Your task to perform on an android device: toggle notifications settings in the gmail app Image 0: 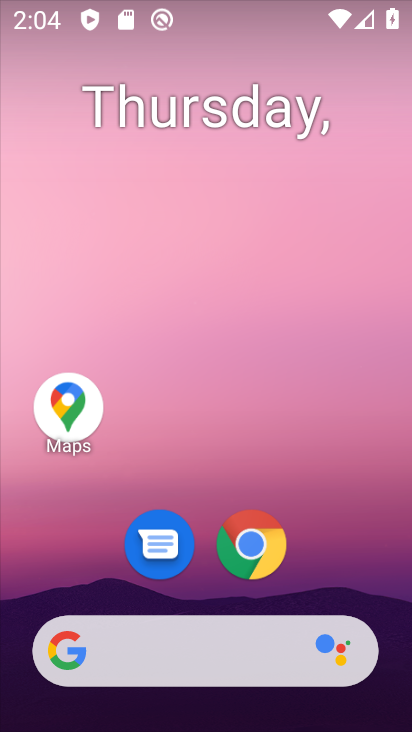
Step 0: drag from (340, 587) to (177, 126)
Your task to perform on an android device: toggle notifications settings in the gmail app Image 1: 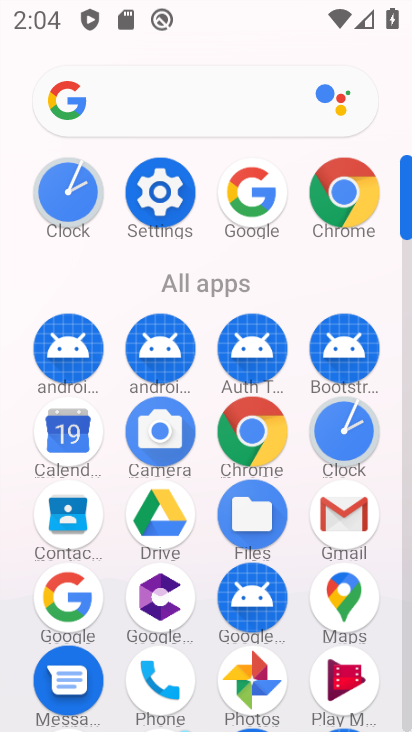
Step 1: click (345, 529)
Your task to perform on an android device: toggle notifications settings in the gmail app Image 2: 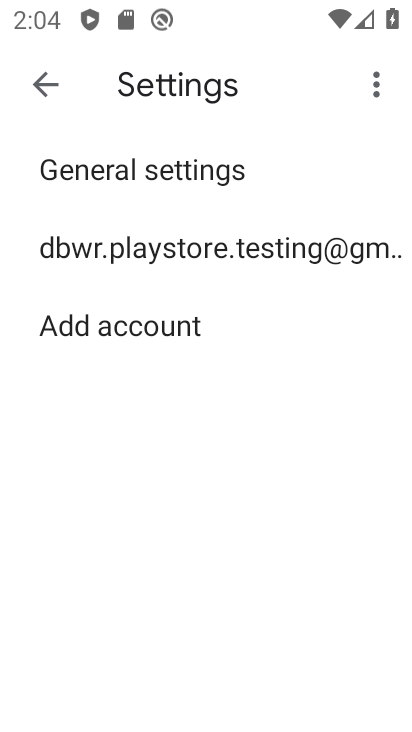
Step 2: click (163, 240)
Your task to perform on an android device: toggle notifications settings in the gmail app Image 3: 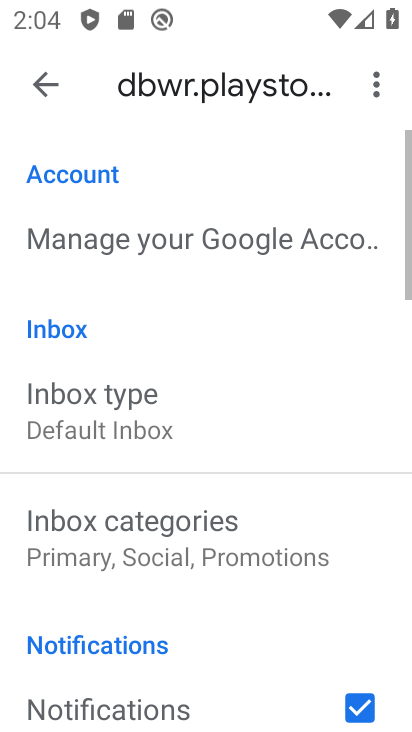
Step 3: drag from (162, 612) to (174, 281)
Your task to perform on an android device: toggle notifications settings in the gmail app Image 4: 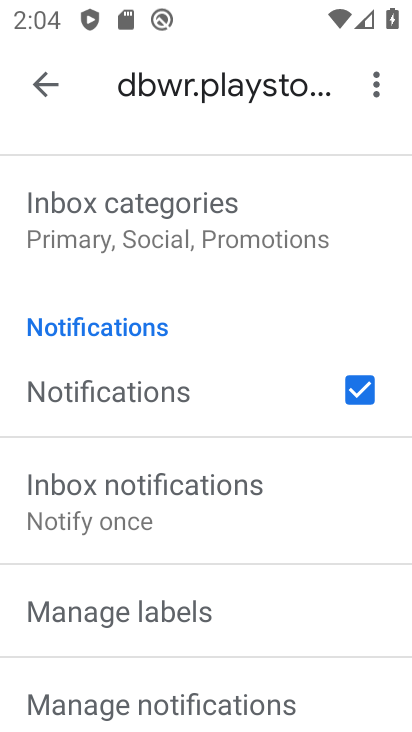
Step 4: drag from (187, 590) to (181, 393)
Your task to perform on an android device: toggle notifications settings in the gmail app Image 5: 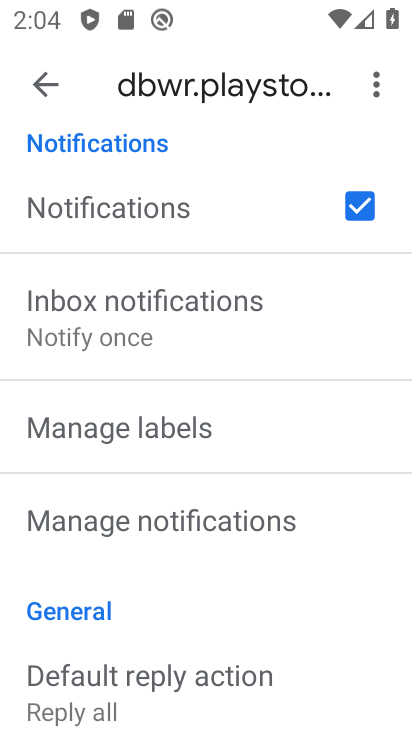
Step 5: click (143, 517)
Your task to perform on an android device: toggle notifications settings in the gmail app Image 6: 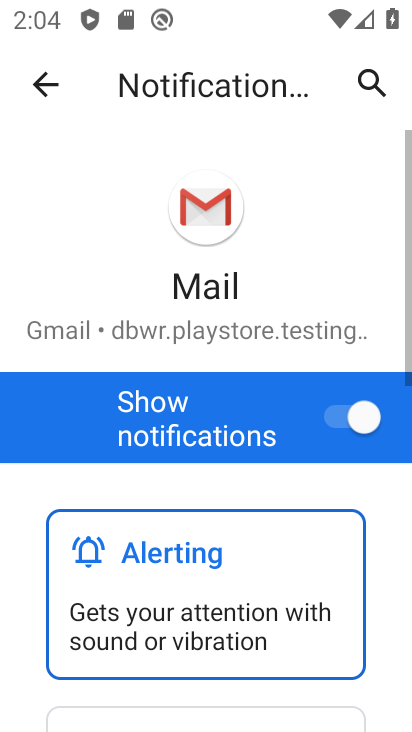
Step 6: click (357, 419)
Your task to perform on an android device: toggle notifications settings in the gmail app Image 7: 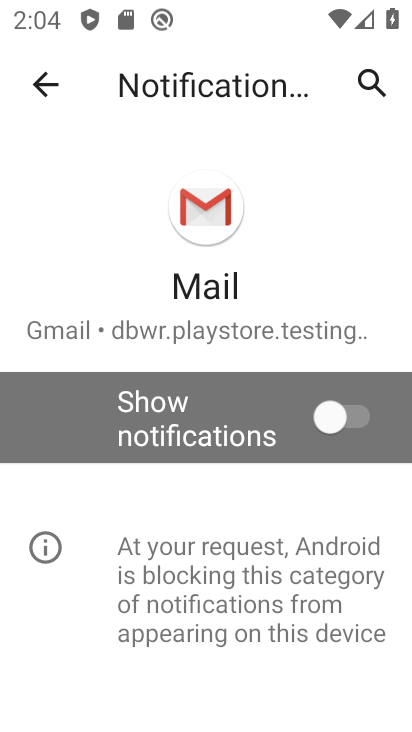
Step 7: task complete